Your task to perform on an android device: turn on location history Image 0: 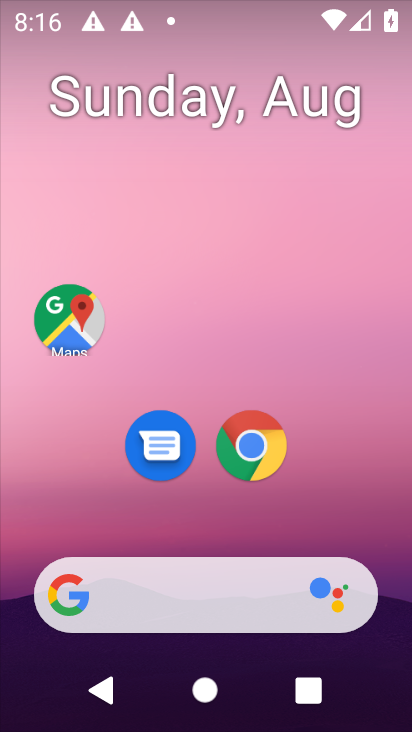
Step 0: press home button
Your task to perform on an android device: turn on location history Image 1: 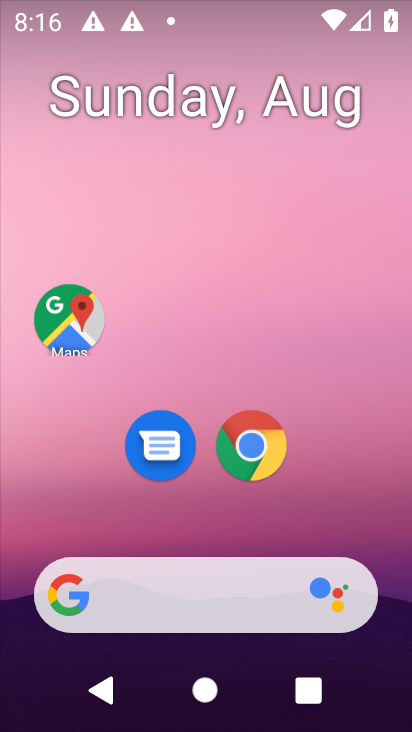
Step 1: drag from (208, 532) to (223, 63)
Your task to perform on an android device: turn on location history Image 2: 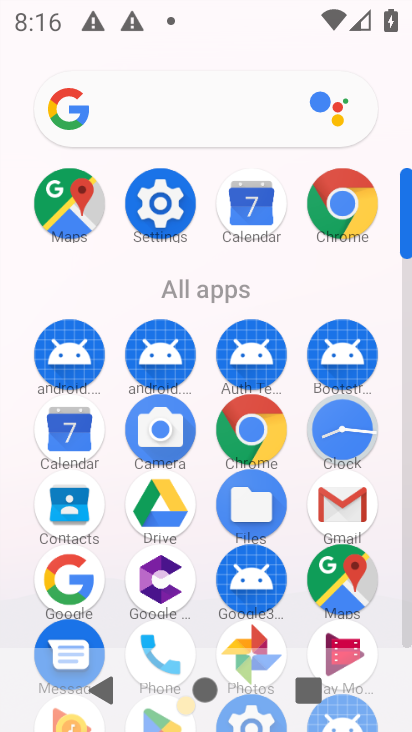
Step 2: click (159, 200)
Your task to perform on an android device: turn on location history Image 3: 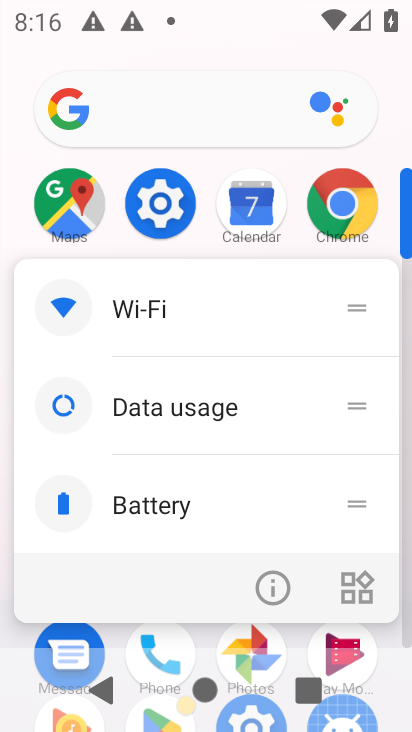
Step 3: click (159, 197)
Your task to perform on an android device: turn on location history Image 4: 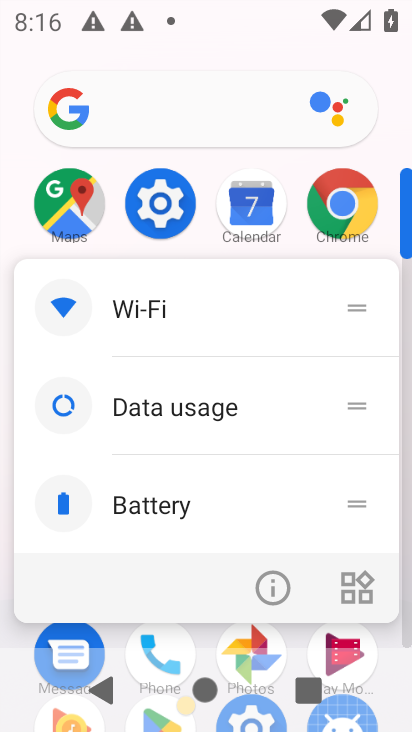
Step 4: click (159, 201)
Your task to perform on an android device: turn on location history Image 5: 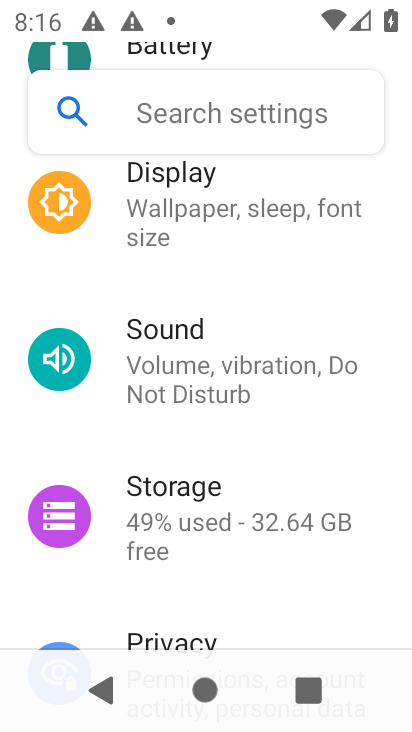
Step 5: drag from (255, 574) to (276, 188)
Your task to perform on an android device: turn on location history Image 6: 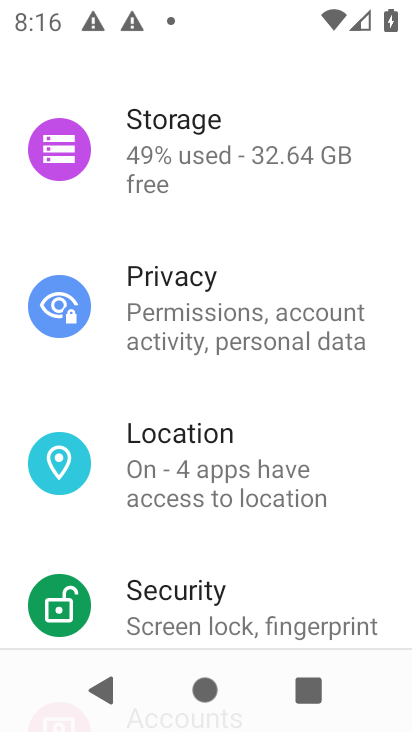
Step 6: click (260, 446)
Your task to perform on an android device: turn on location history Image 7: 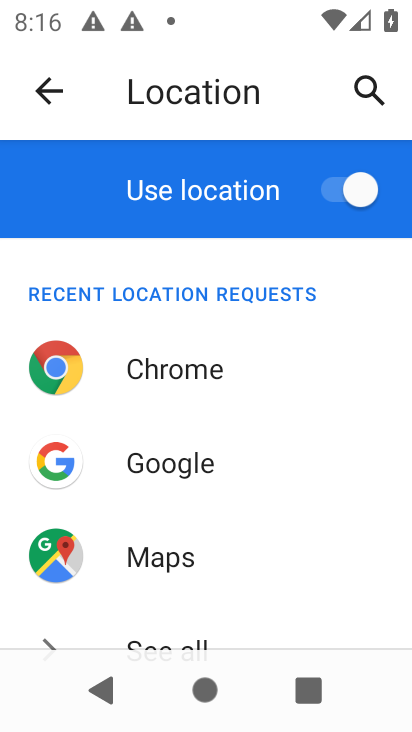
Step 7: drag from (229, 612) to (248, 137)
Your task to perform on an android device: turn on location history Image 8: 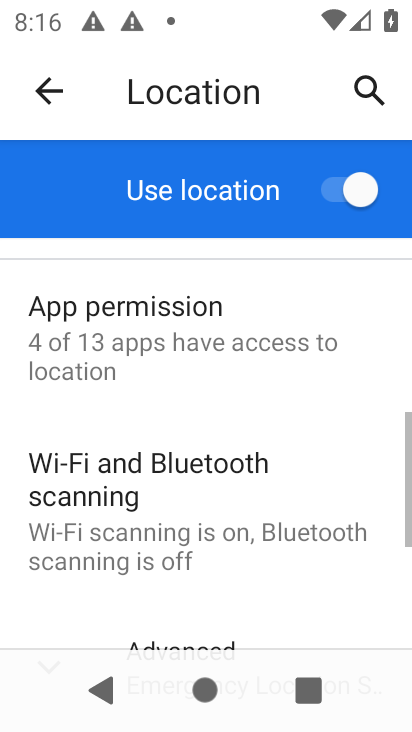
Step 8: drag from (139, 601) to (168, 227)
Your task to perform on an android device: turn on location history Image 9: 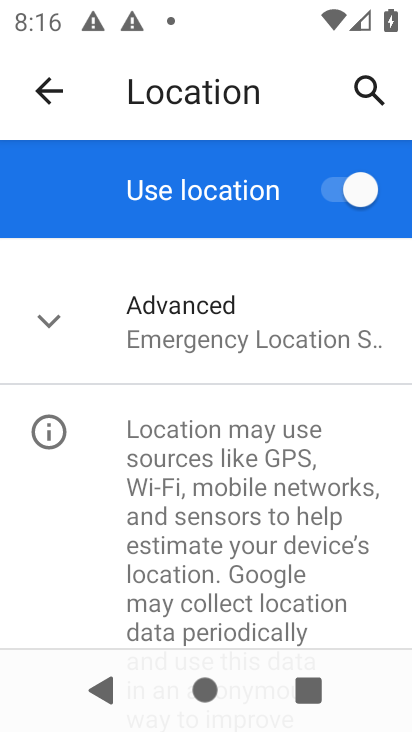
Step 9: click (46, 308)
Your task to perform on an android device: turn on location history Image 10: 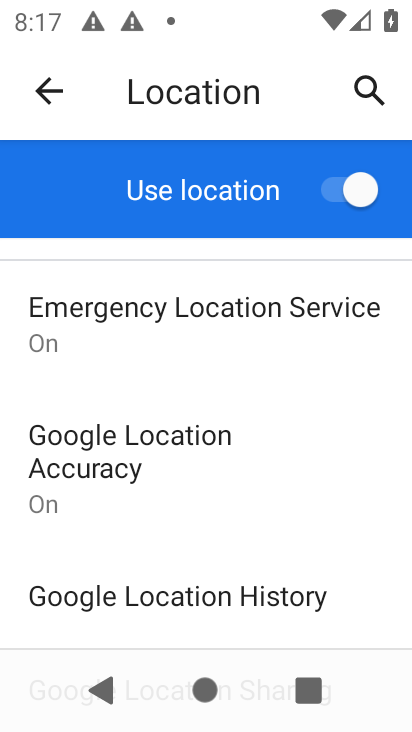
Step 10: click (241, 608)
Your task to perform on an android device: turn on location history Image 11: 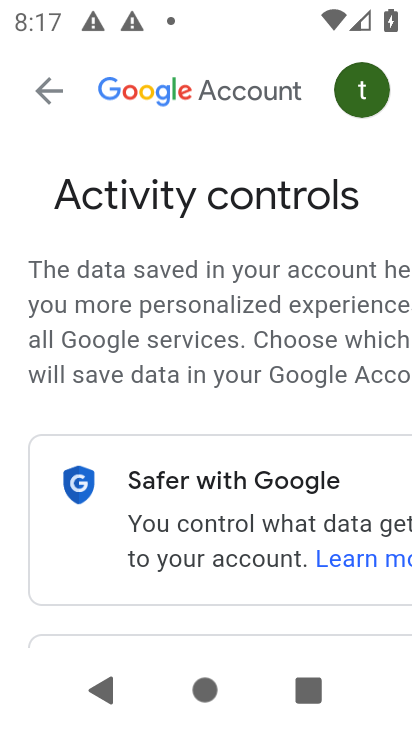
Step 11: task complete